Your task to perform on an android device: What's on my calendar today? Image 0: 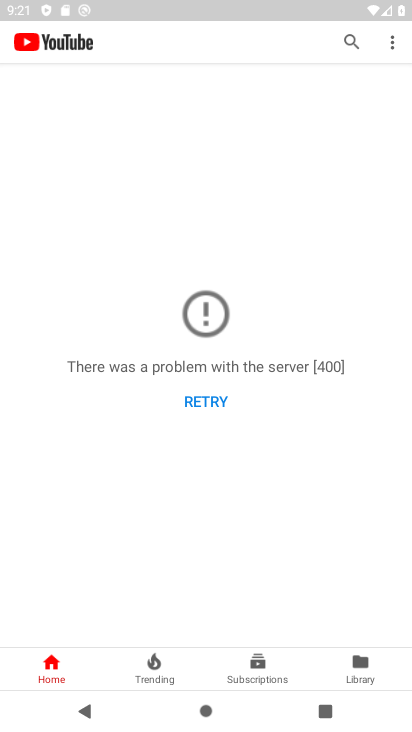
Step 0: press home button
Your task to perform on an android device: What's on my calendar today? Image 1: 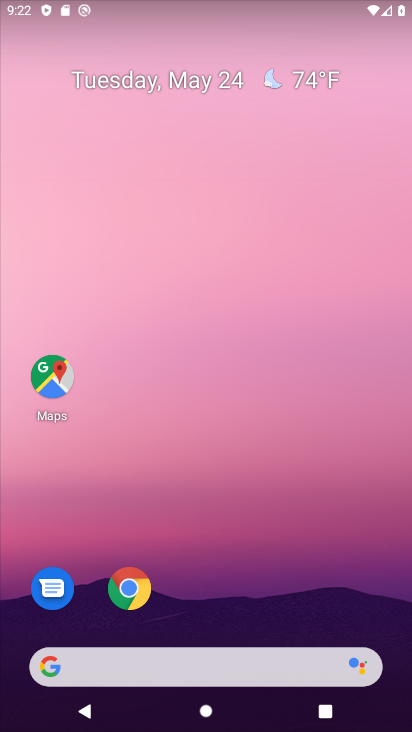
Step 1: drag from (190, 621) to (265, 68)
Your task to perform on an android device: What's on my calendar today? Image 2: 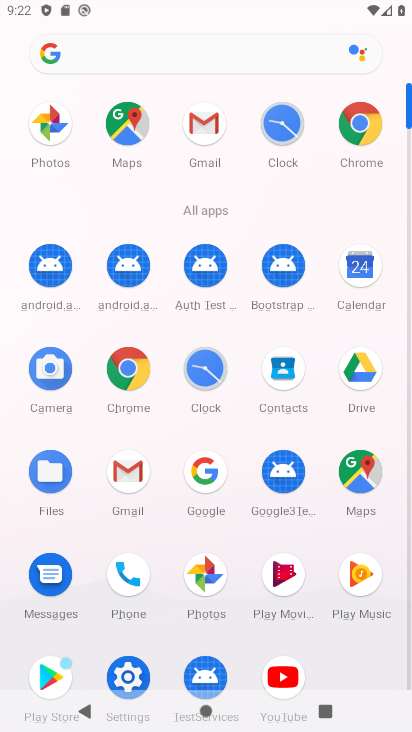
Step 2: click (360, 258)
Your task to perform on an android device: What's on my calendar today? Image 3: 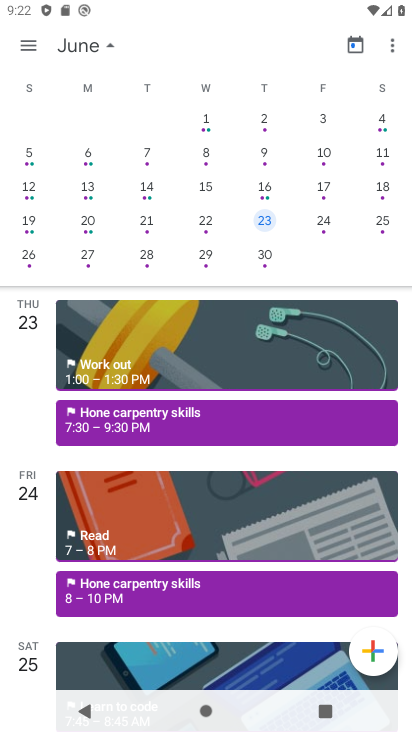
Step 3: click (127, 423)
Your task to perform on an android device: What's on my calendar today? Image 4: 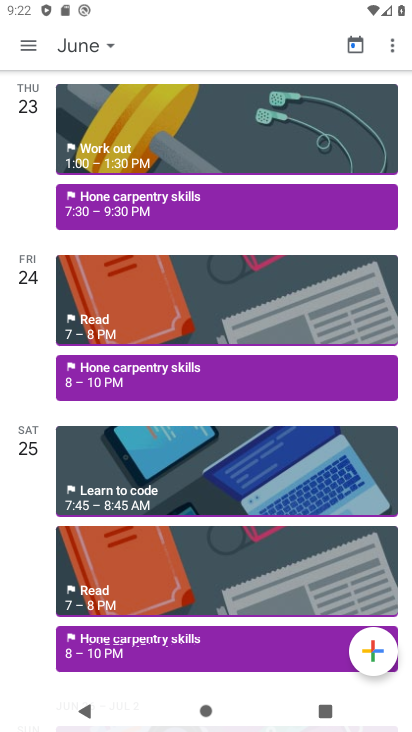
Step 4: task complete